Your task to perform on an android device: Search for sushi restaurants on Maps Image 0: 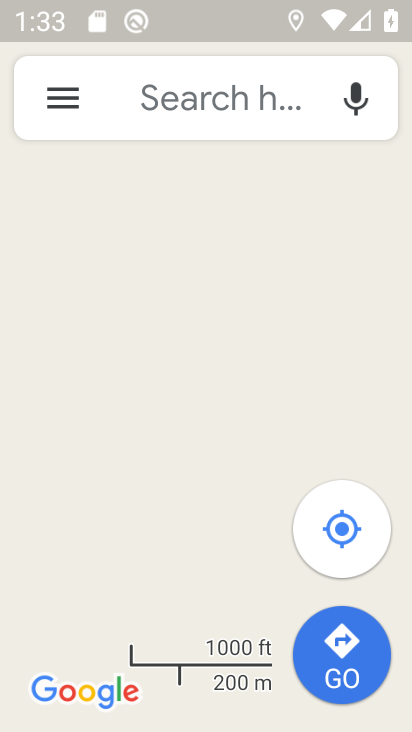
Step 0: press home button
Your task to perform on an android device: Search for sushi restaurants on Maps Image 1: 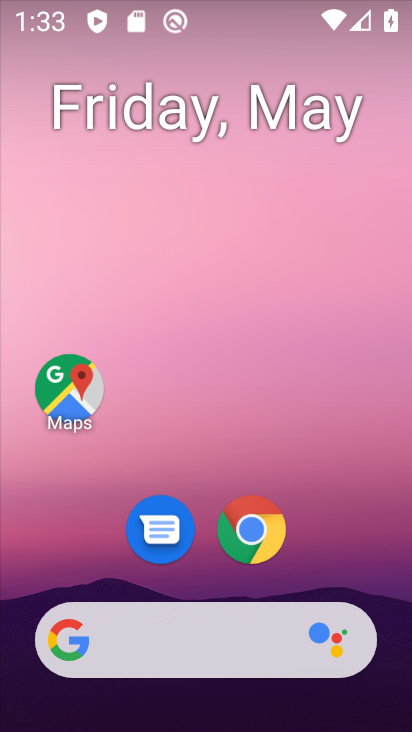
Step 1: click (57, 386)
Your task to perform on an android device: Search for sushi restaurants on Maps Image 2: 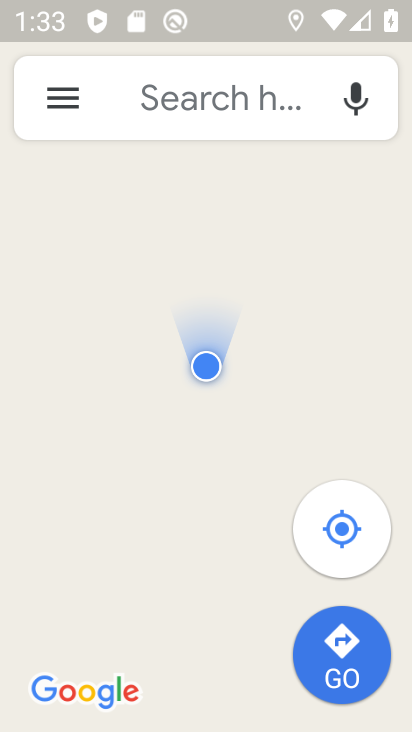
Step 2: click (212, 101)
Your task to perform on an android device: Search for sushi restaurants on Maps Image 3: 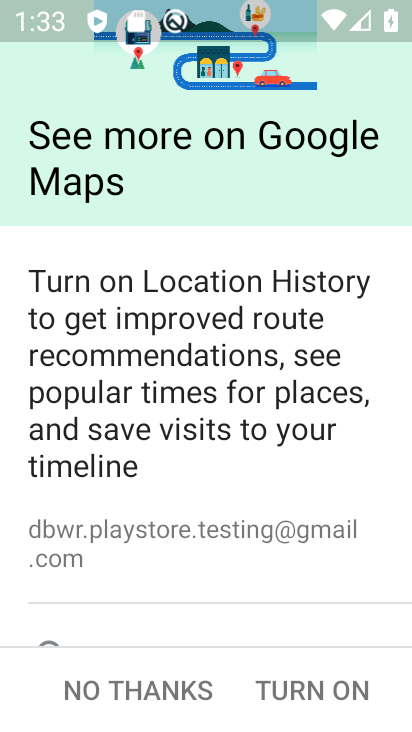
Step 3: click (162, 689)
Your task to perform on an android device: Search for sushi restaurants on Maps Image 4: 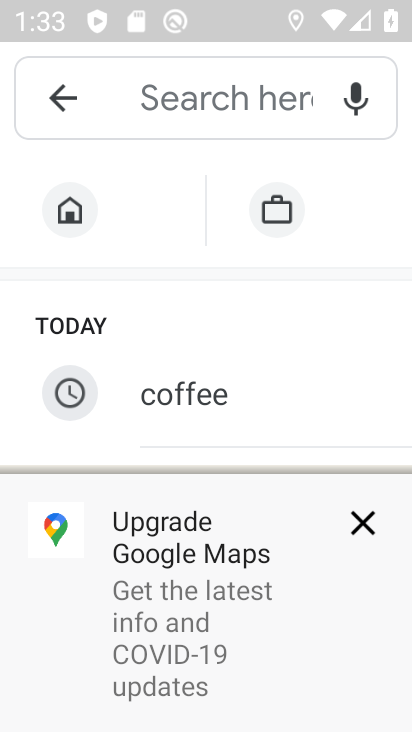
Step 4: click (363, 518)
Your task to perform on an android device: Search for sushi restaurants on Maps Image 5: 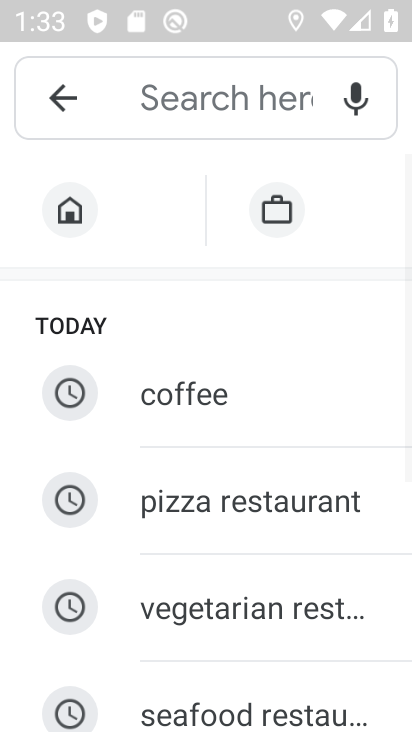
Step 5: drag from (234, 665) to (289, 255)
Your task to perform on an android device: Search for sushi restaurants on Maps Image 6: 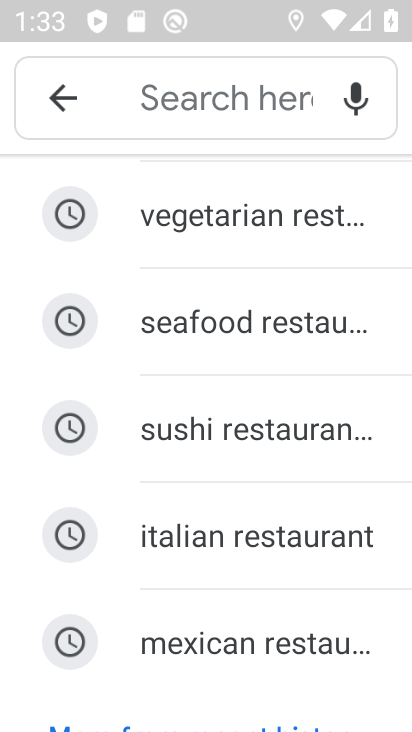
Step 6: click (238, 432)
Your task to perform on an android device: Search for sushi restaurants on Maps Image 7: 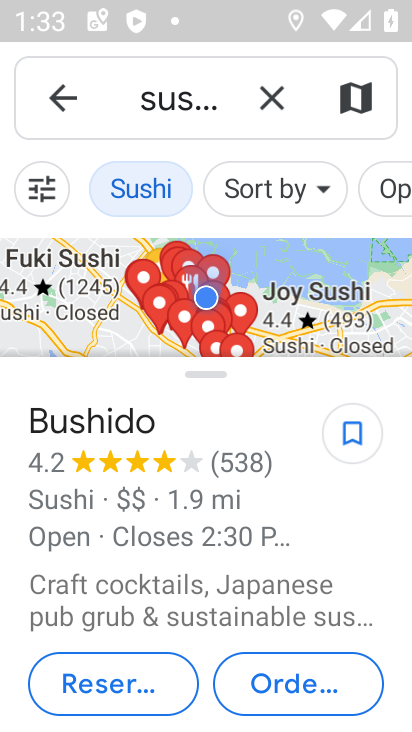
Step 7: task complete